Your task to perform on an android device: Open my contact list Image 0: 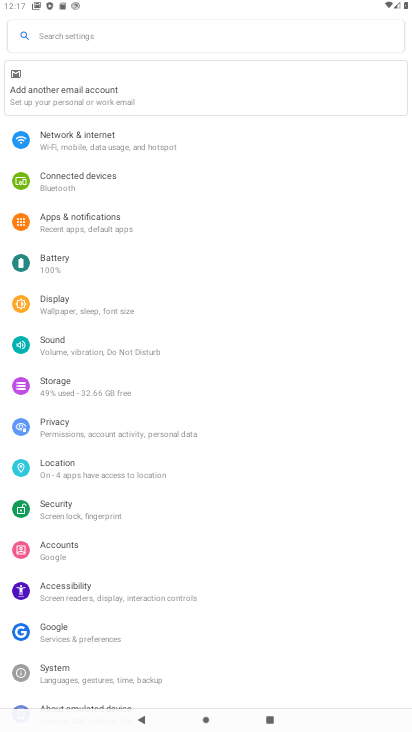
Step 0: press home button
Your task to perform on an android device: Open my contact list Image 1: 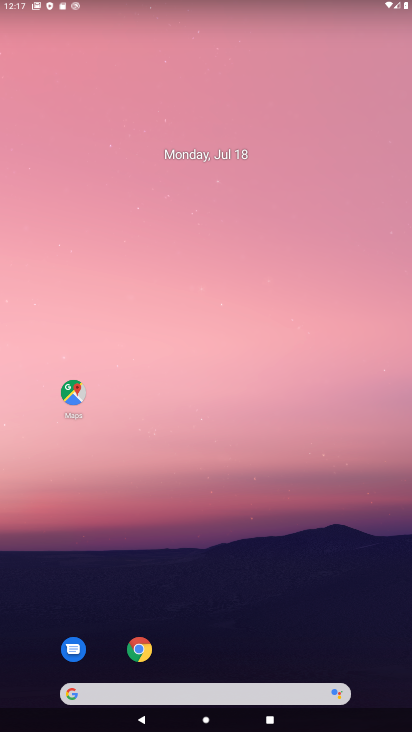
Step 1: drag from (367, 657) to (292, 191)
Your task to perform on an android device: Open my contact list Image 2: 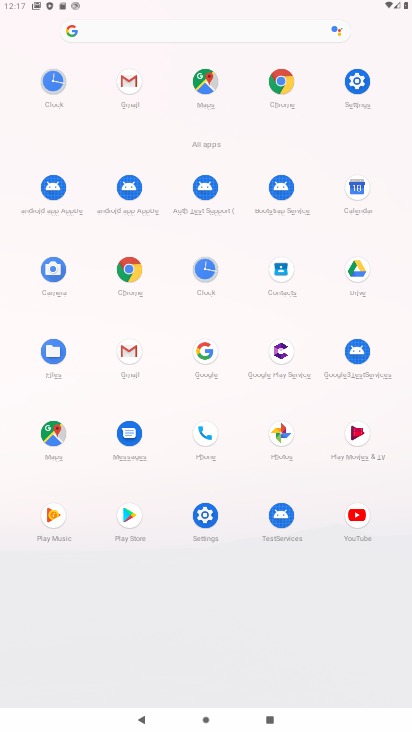
Step 2: click (279, 269)
Your task to perform on an android device: Open my contact list Image 3: 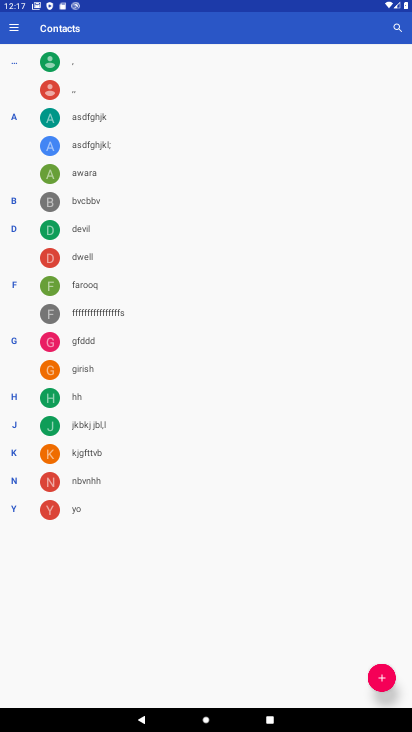
Step 3: task complete